Your task to perform on an android device: star an email in the gmail app Image 0: 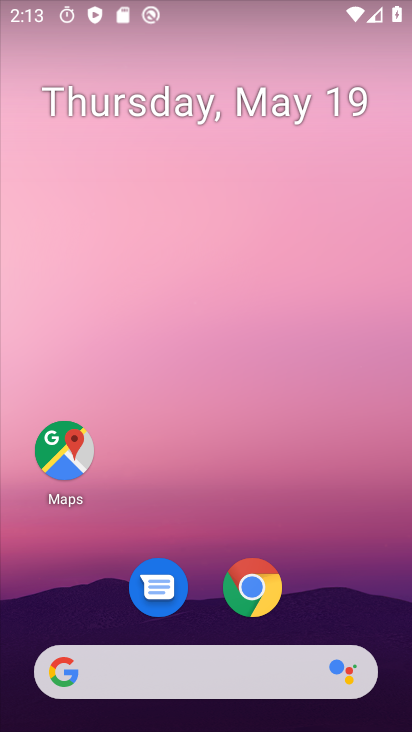
Step 0: click (192, 725)
Your task to perform on an android device: star an email in the gmail app Image 1: 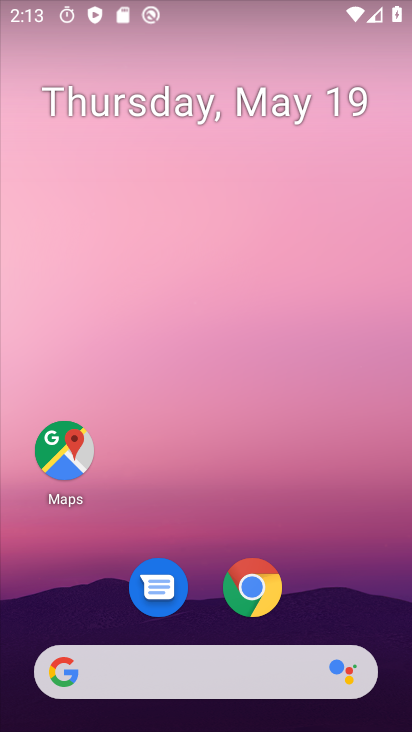
Step 1: drag from (218, 175) to (220, 84)
Your task to perform on an android device: star an email in the gmail app Image 2: 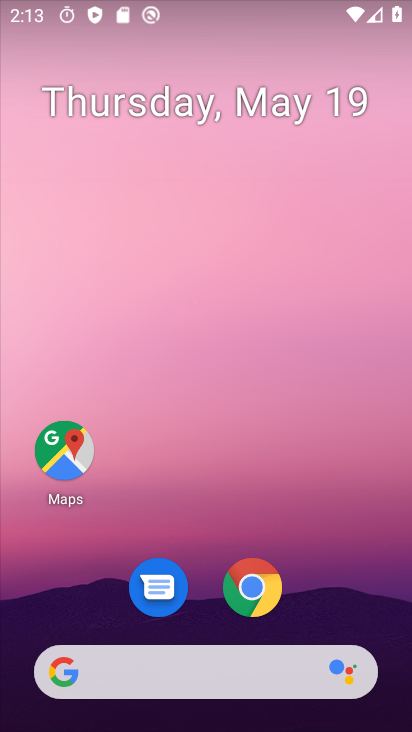
Step 2: drag from (189, 723) to (191, 662)
Your task to perform on an android device: star an email in the gmail app Image 3: 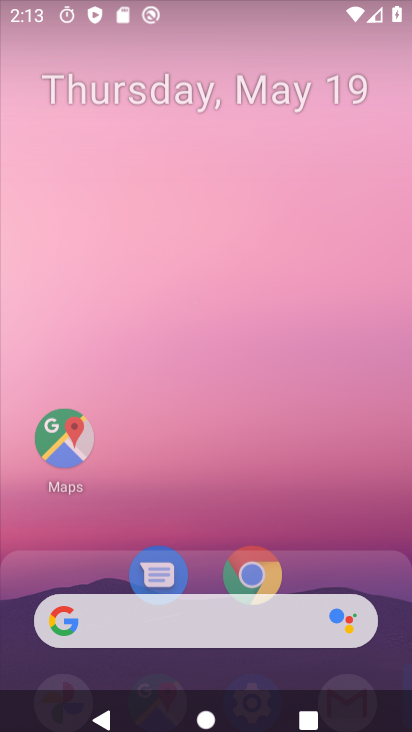
Step 3: click (193, 26)
Your task to perform on an android device: star an email in the gmail app Image 4: 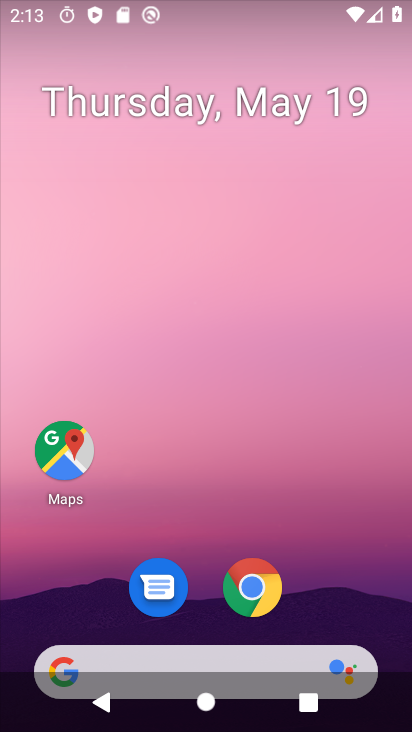
Step 4: drag from (255, 655) to (257, 117)
Your task to perform on an android device: star an email in the gmail app Image 5: 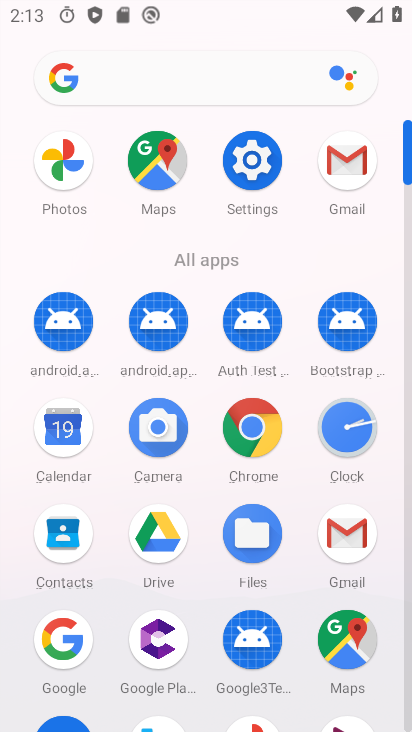
Step 5: click (342, 539)
Your task to perform on an android device: star an email in the gmail app Image 6: 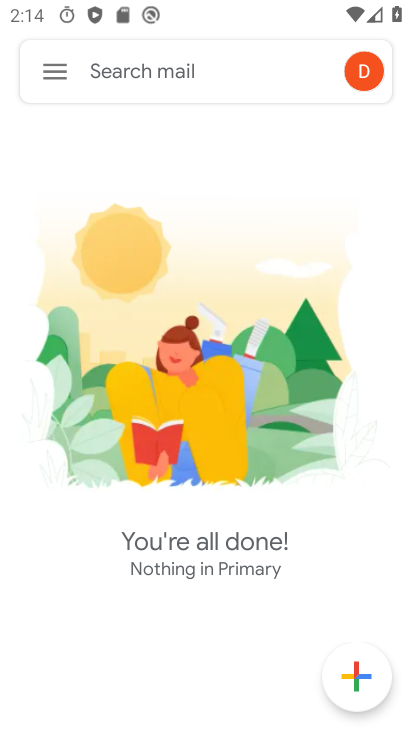
Step 6: task complete